Your task to perform on an android device: find snoozed emails in the gmail app Image 0: 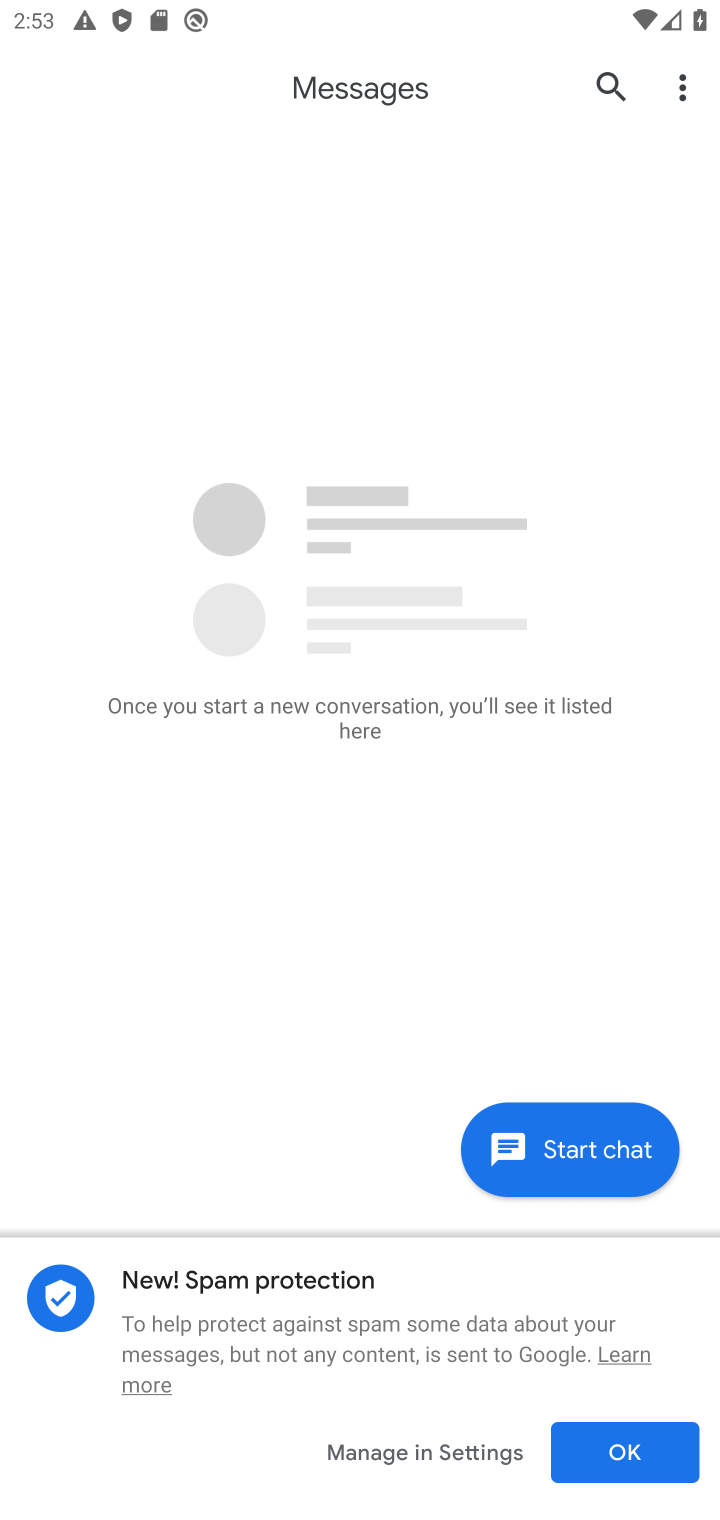
Step 0: press home button
Your task to perform on an android device: find snoozed emails in the gmail app Image 1: 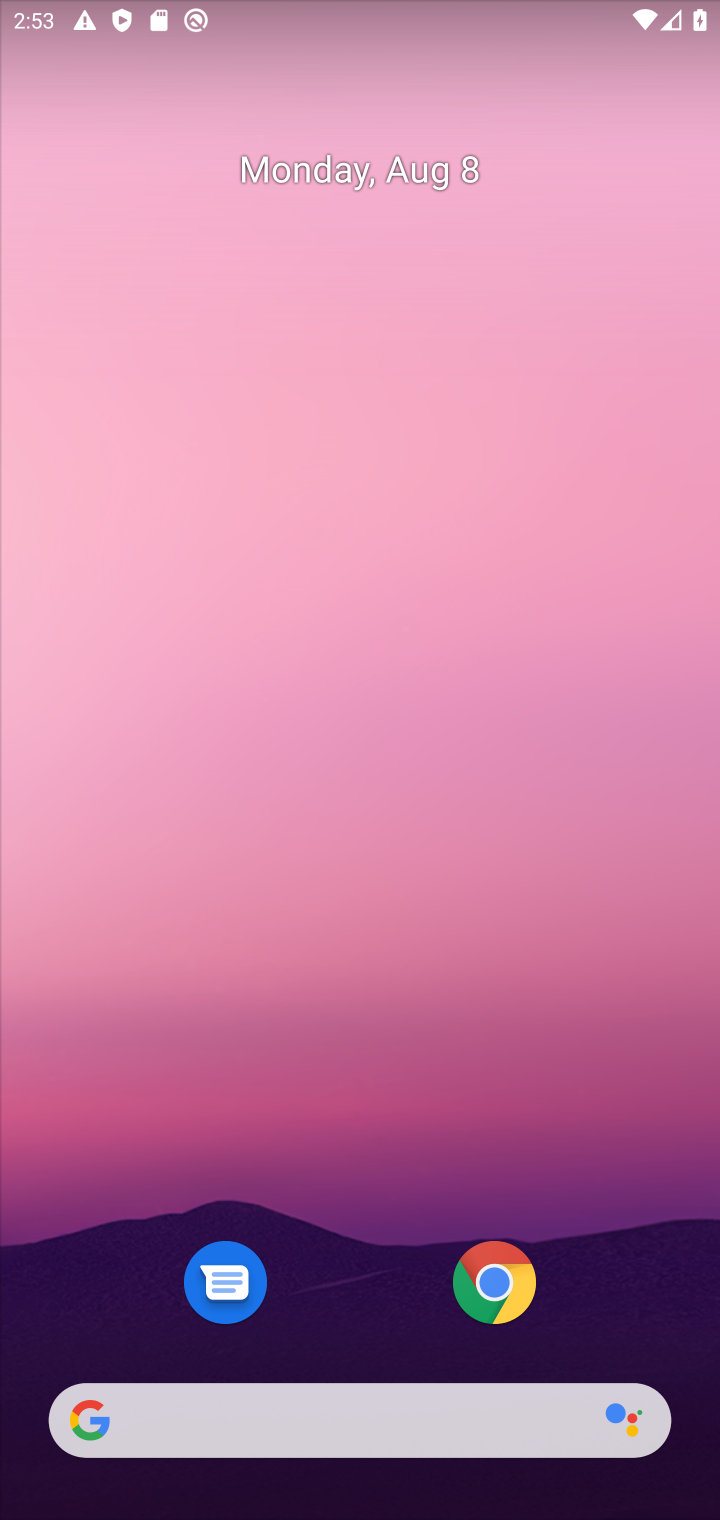
Step 1: drag from (535, 1039) to (525, 13)
Your task to perform on an android device: find snoozed emails in the gmail app Image 2: 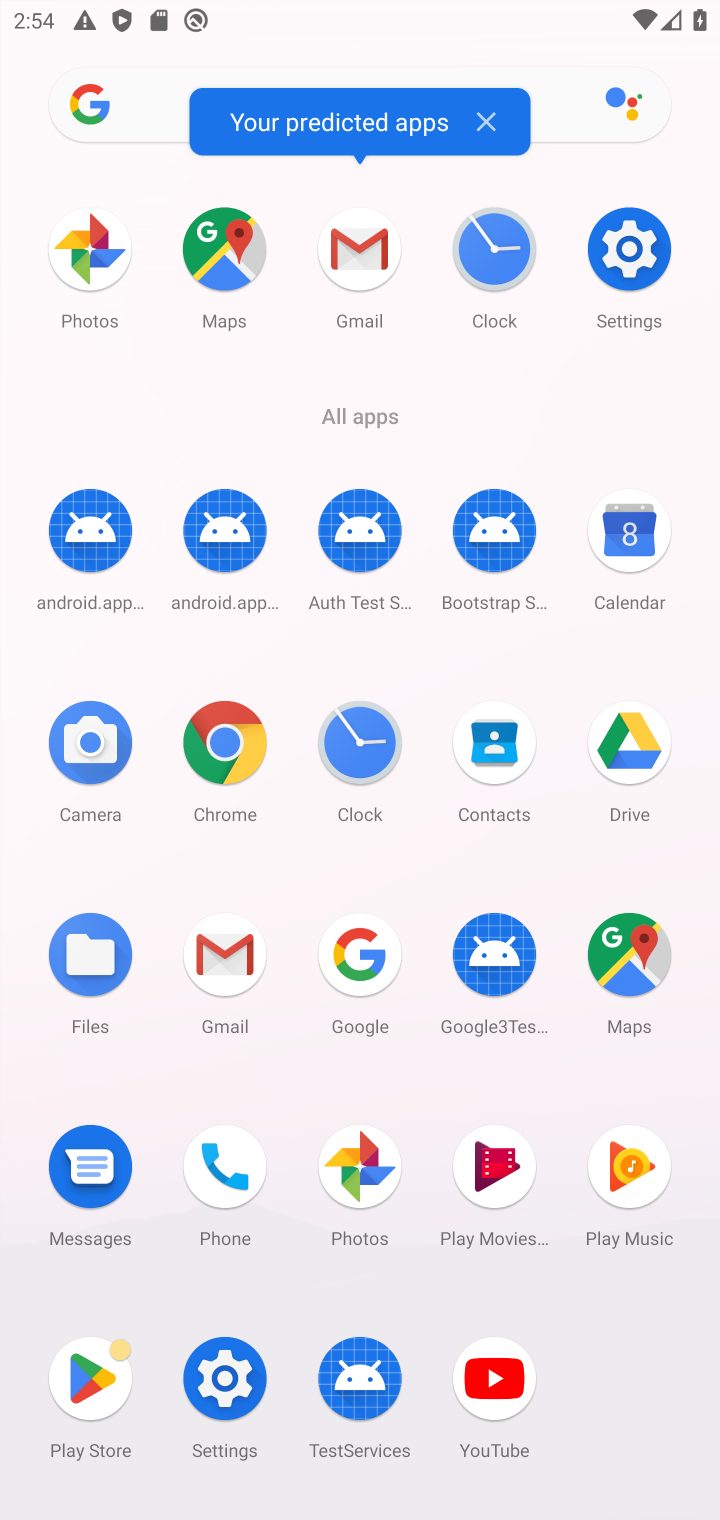
Step 2: click (223, 964)
Your task to perform on an android device: find snoozed emails in the gmail app Image 3: 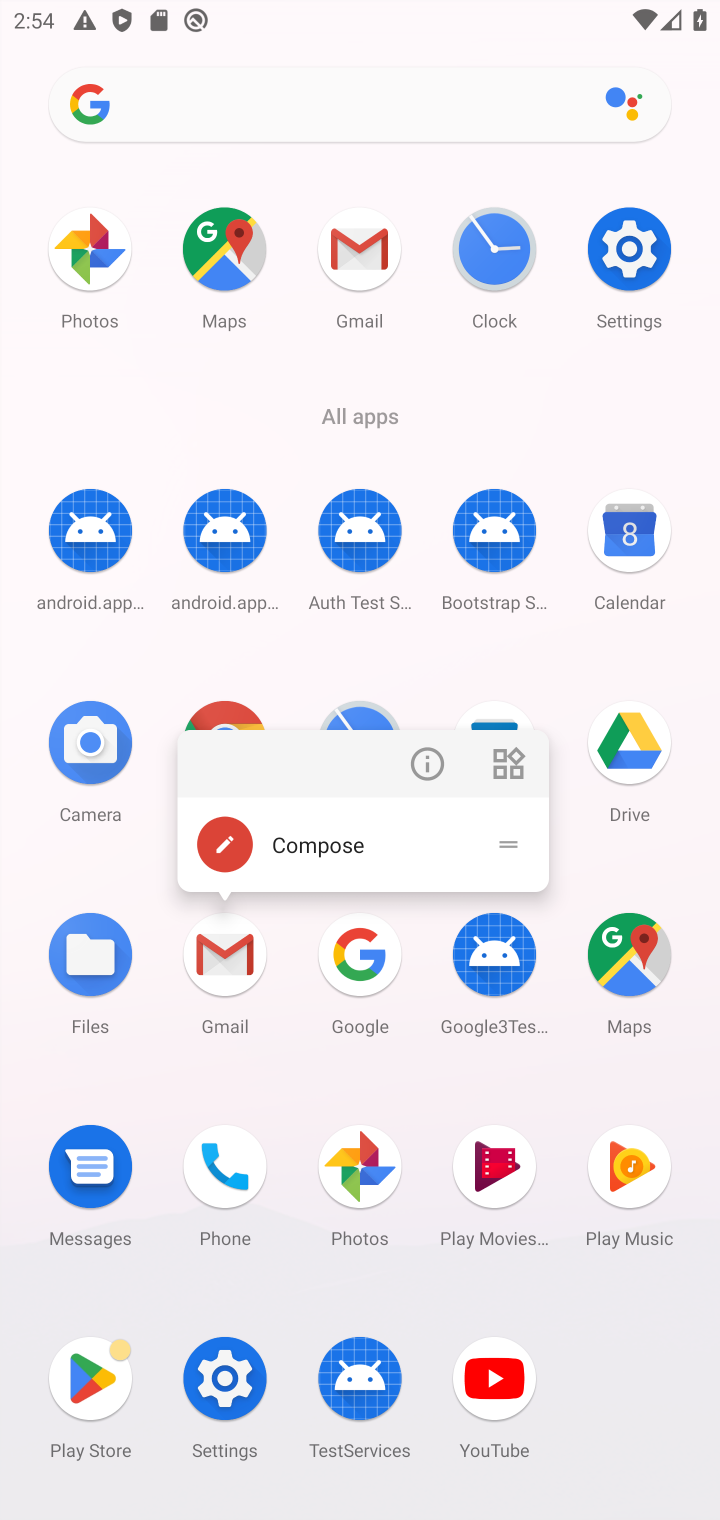
Step 3: click (212, 949)
Your task to perform on an android device: find snoozed emails in the gmail app Image 4: 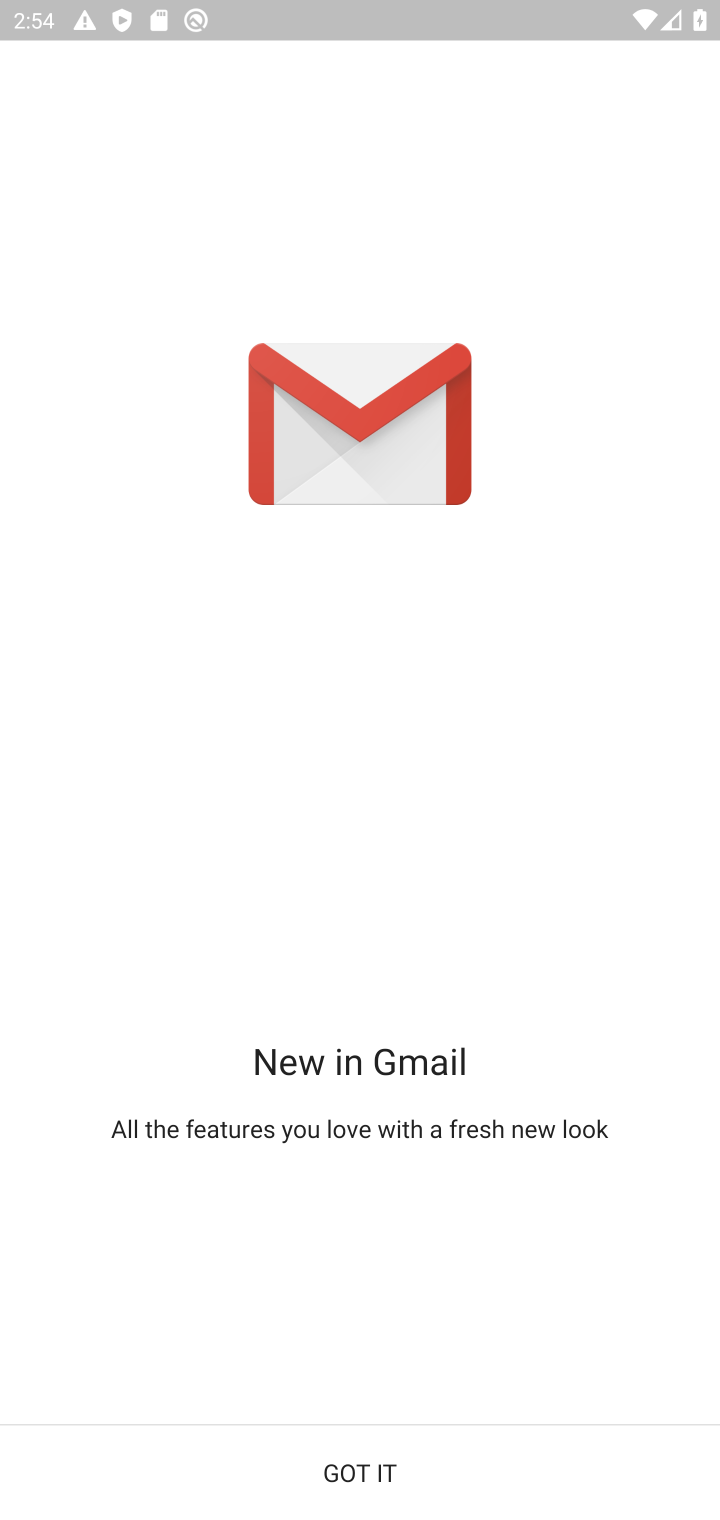
Step 4: click (337, 1479)
Your task to perform on an android device: find snoozed emails in the gmail app Image 5: 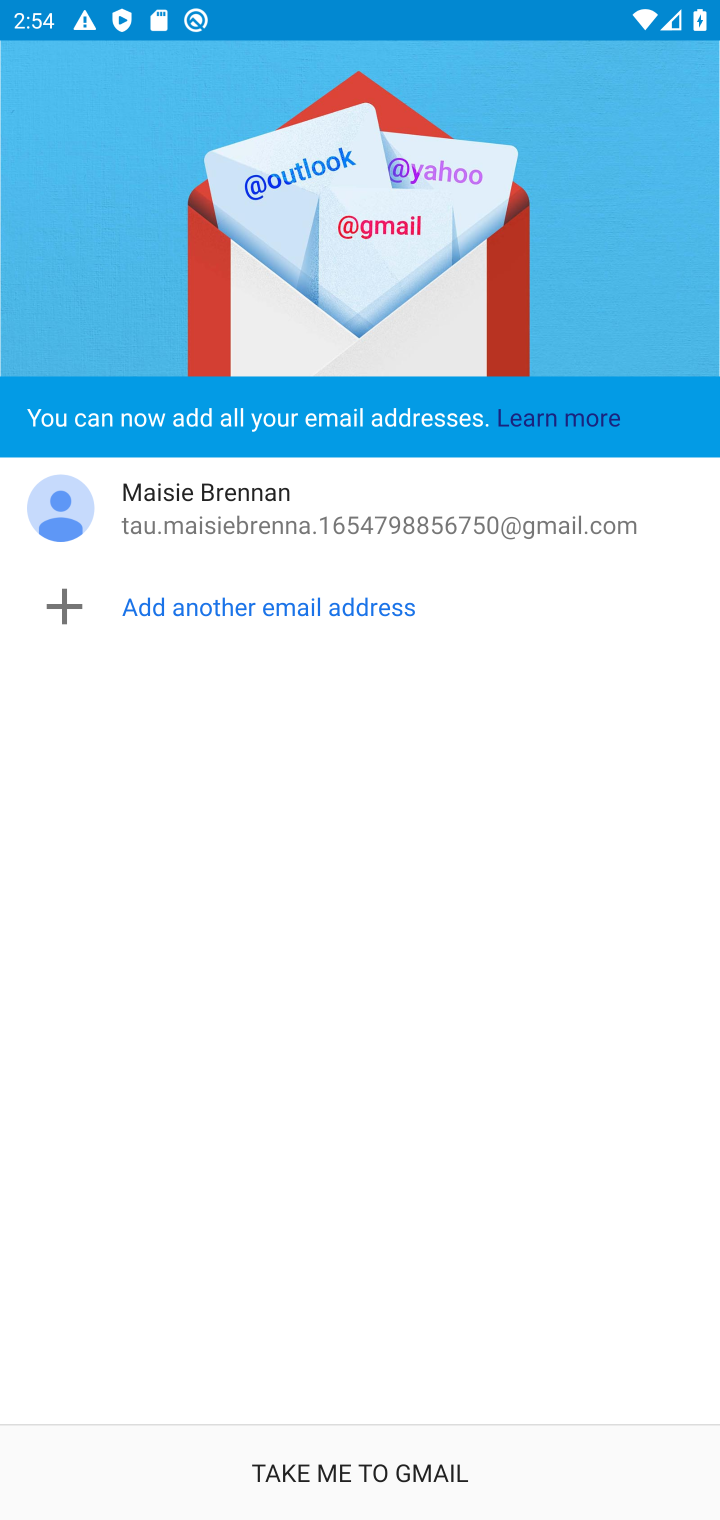
Step 5: click (392, 1485)
Your task to perform on an android device: find snoozed emails in the gmail app Image 6: 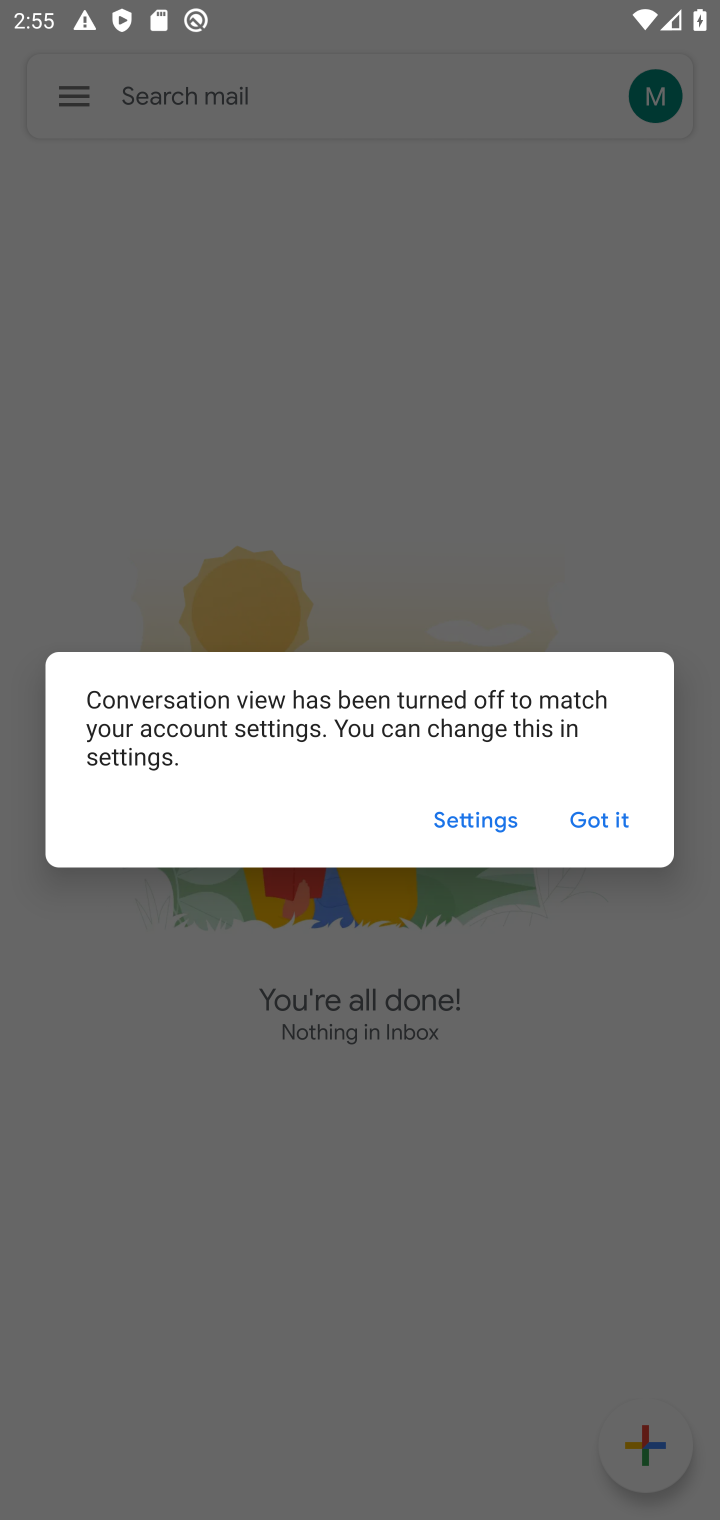
Step 6: click (606, 829)
Your task to perform on an android device: find snoozed emails in the gmail app Image 7: 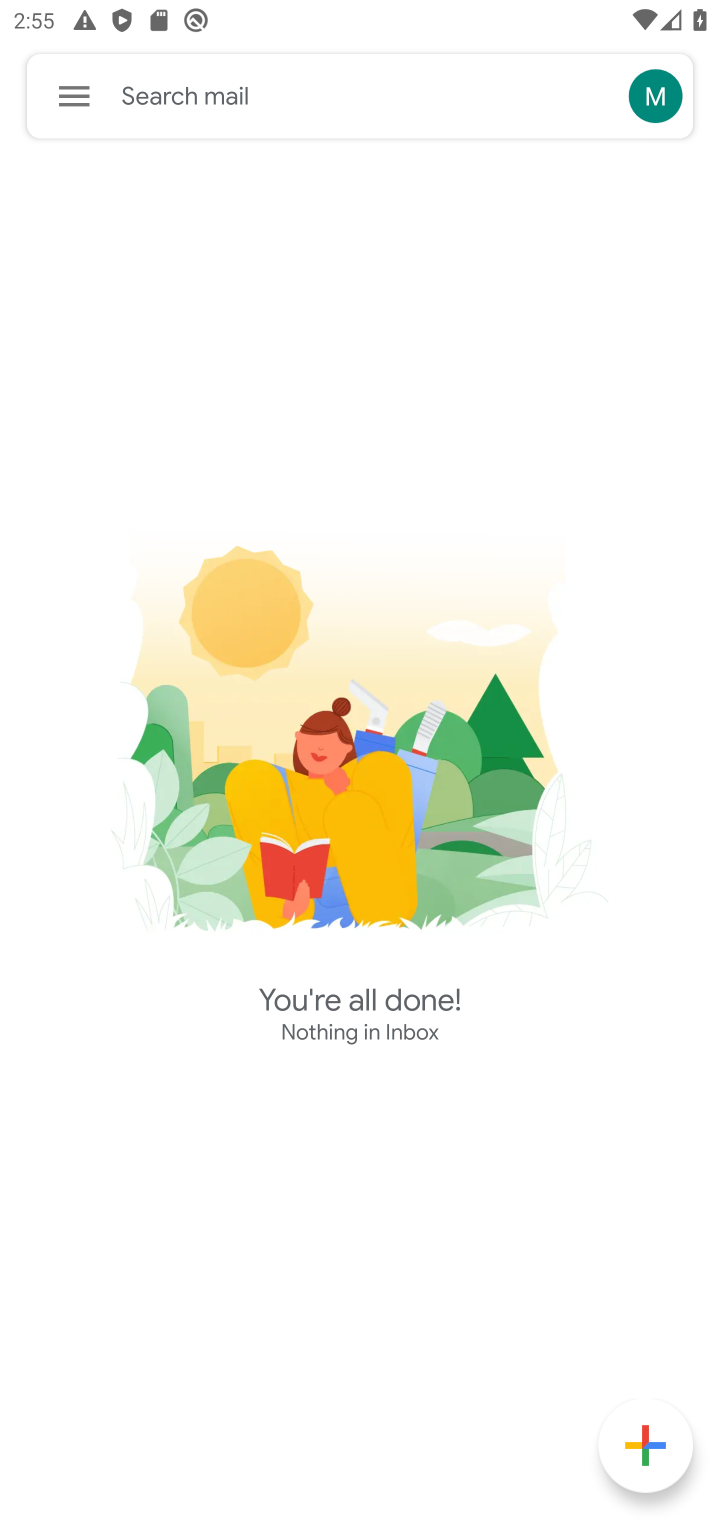
Step 7: click (72, 90)
Your task to perform on an android device: find snoozed emails in the gmail app Image 8: 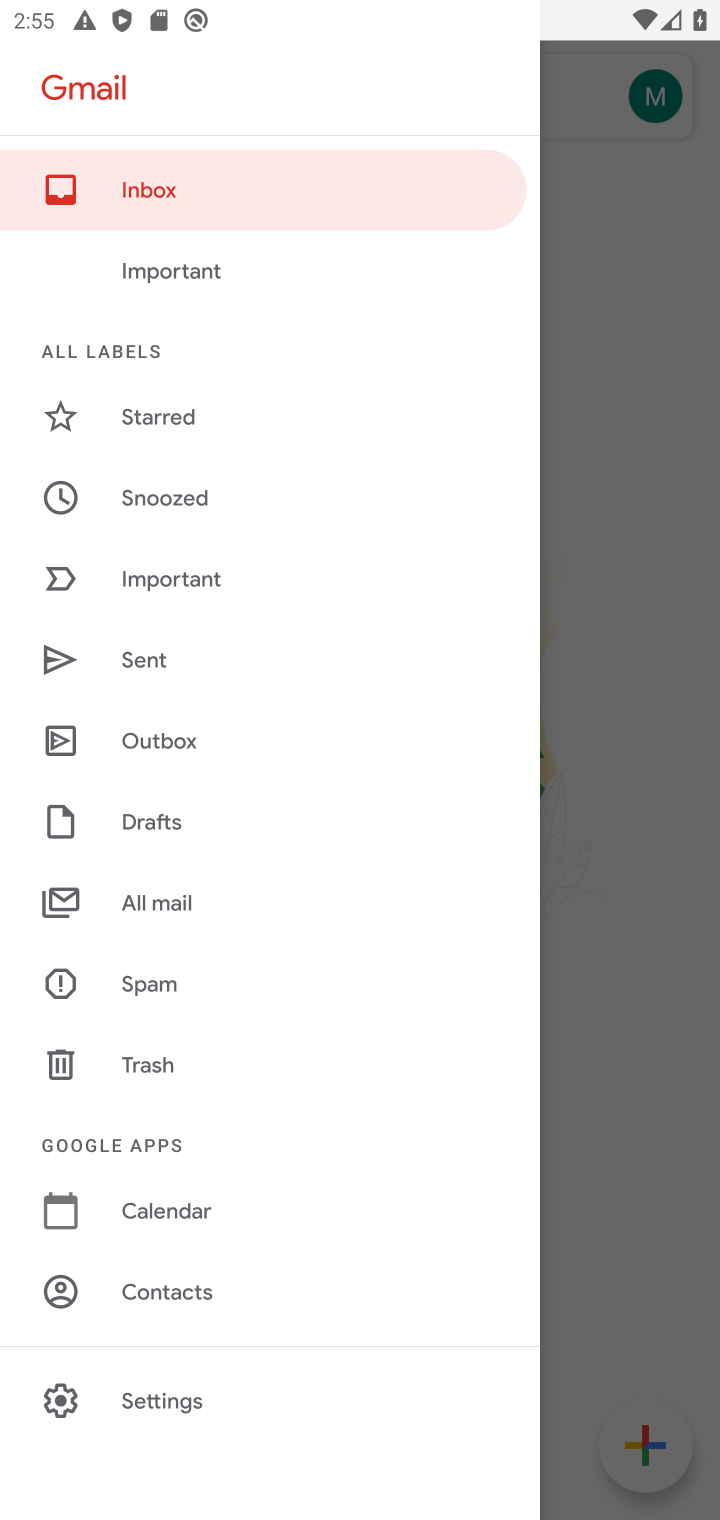
Step 8: click (168, 494)
Your task to perform on an android device: find snoozed emails in the gmail app Image 9: 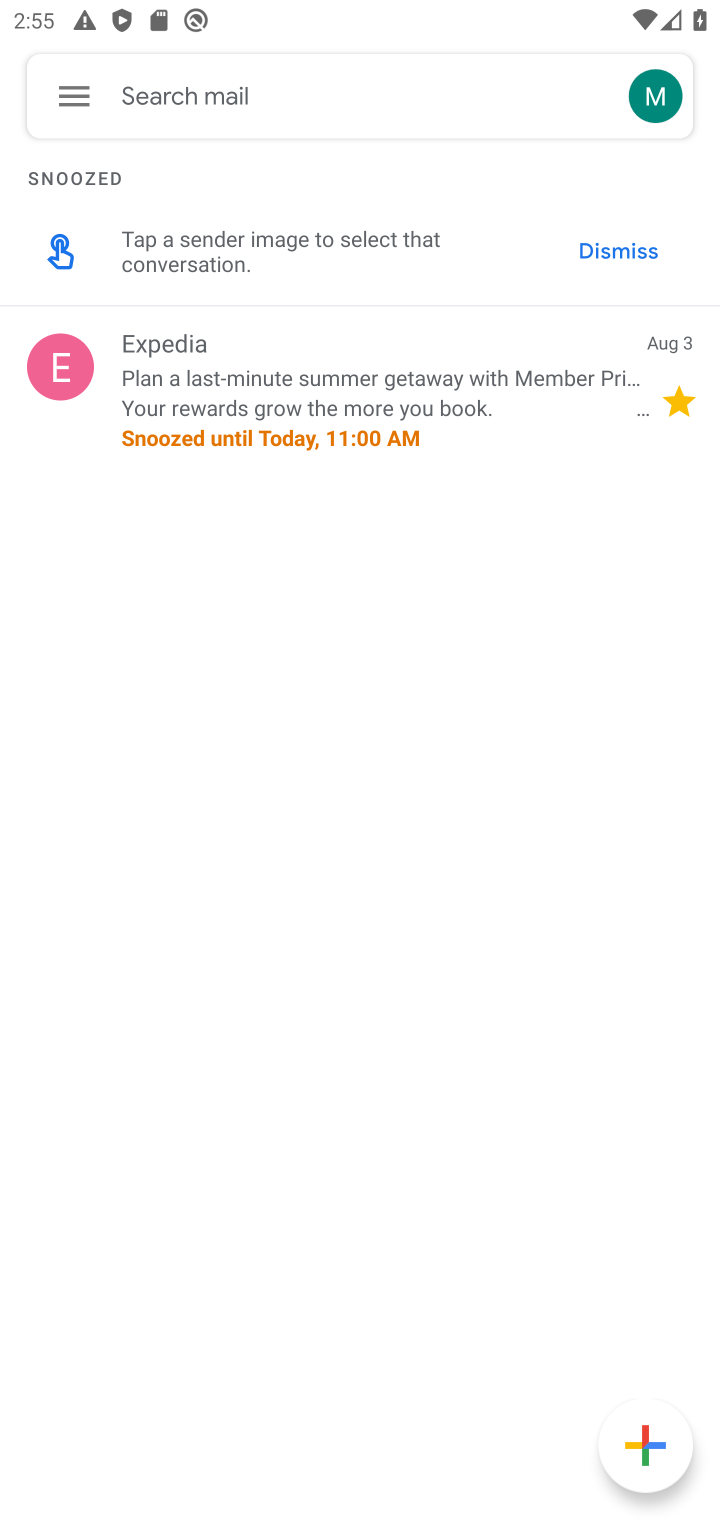
Step 9: task complete